Your task to perform on an android device: Open the phone app and click the voicemail tab. Image 0: 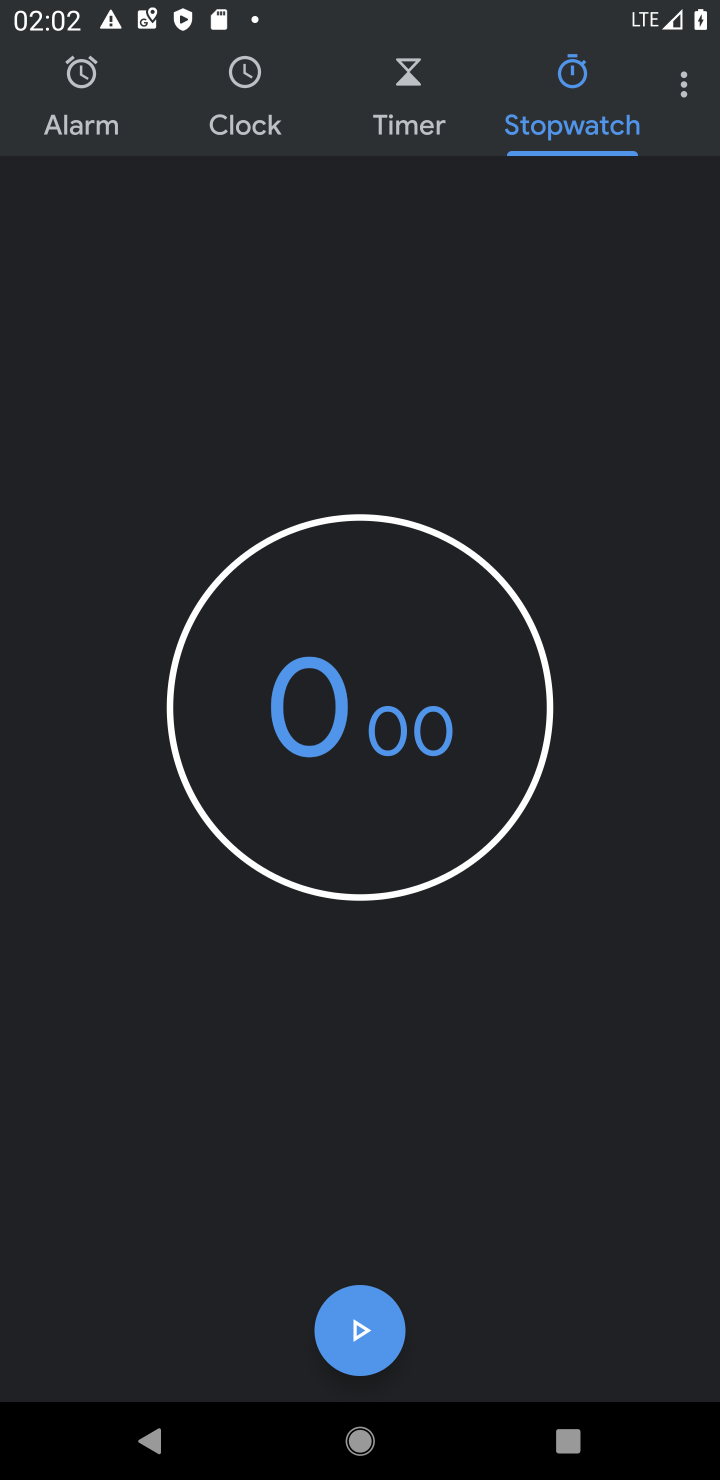
Step 0: click (356, 1445)
Your task to perform on an android device: Open the phone app and click the voicemail tab. Image 1: 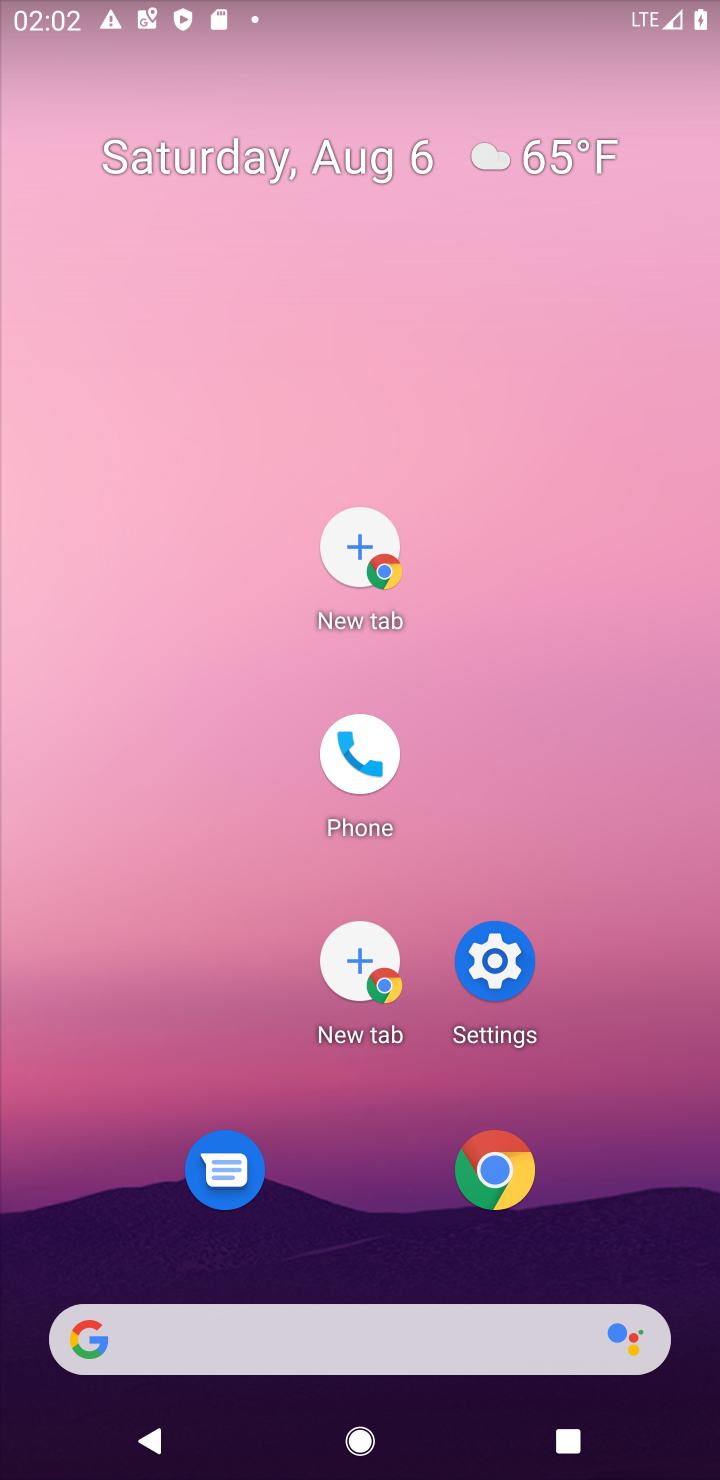
Step 1: click (348, 738)
Your task to perform on an android device: Open the phone app and click the voicemail tab. Image 2: 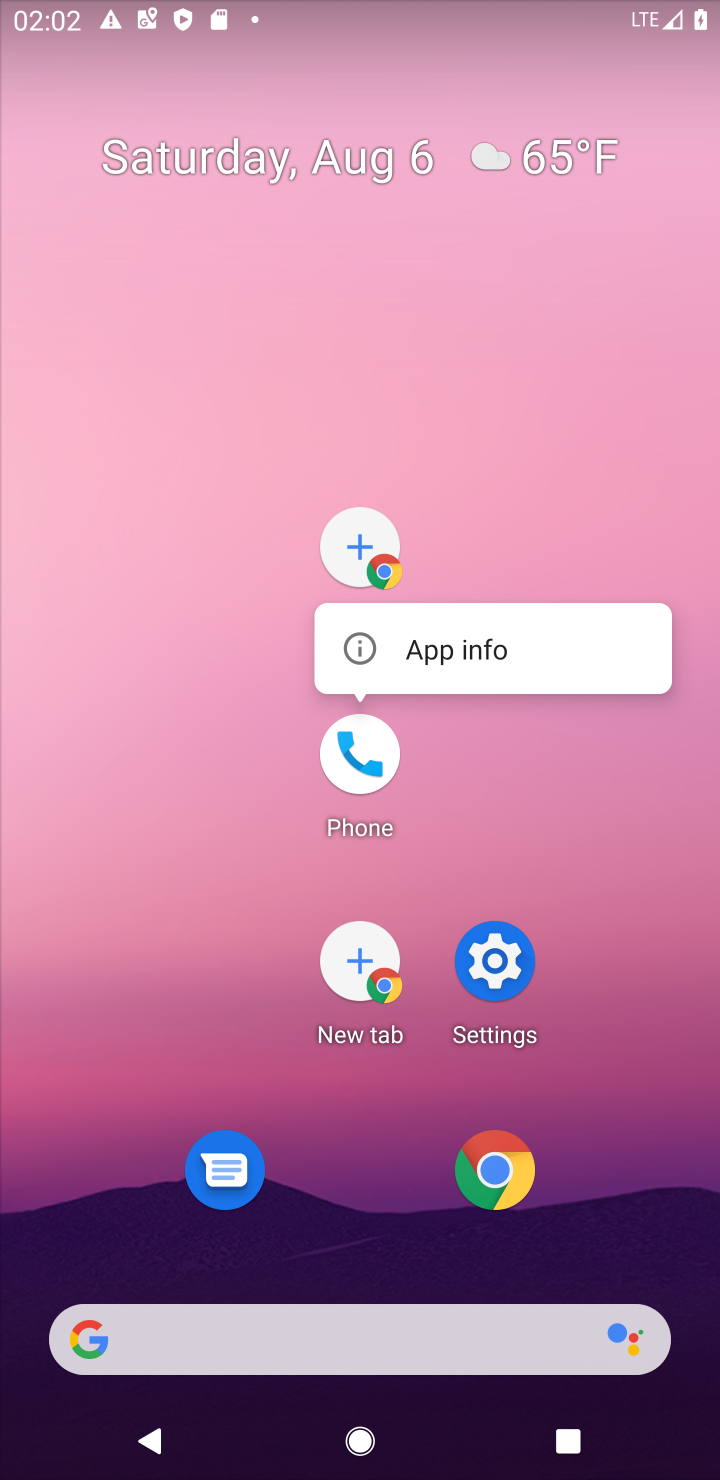
Step 2: click (50, 599)
Your task to perform on an android device: Open the phone app and click the voicemail tab. Image 3: 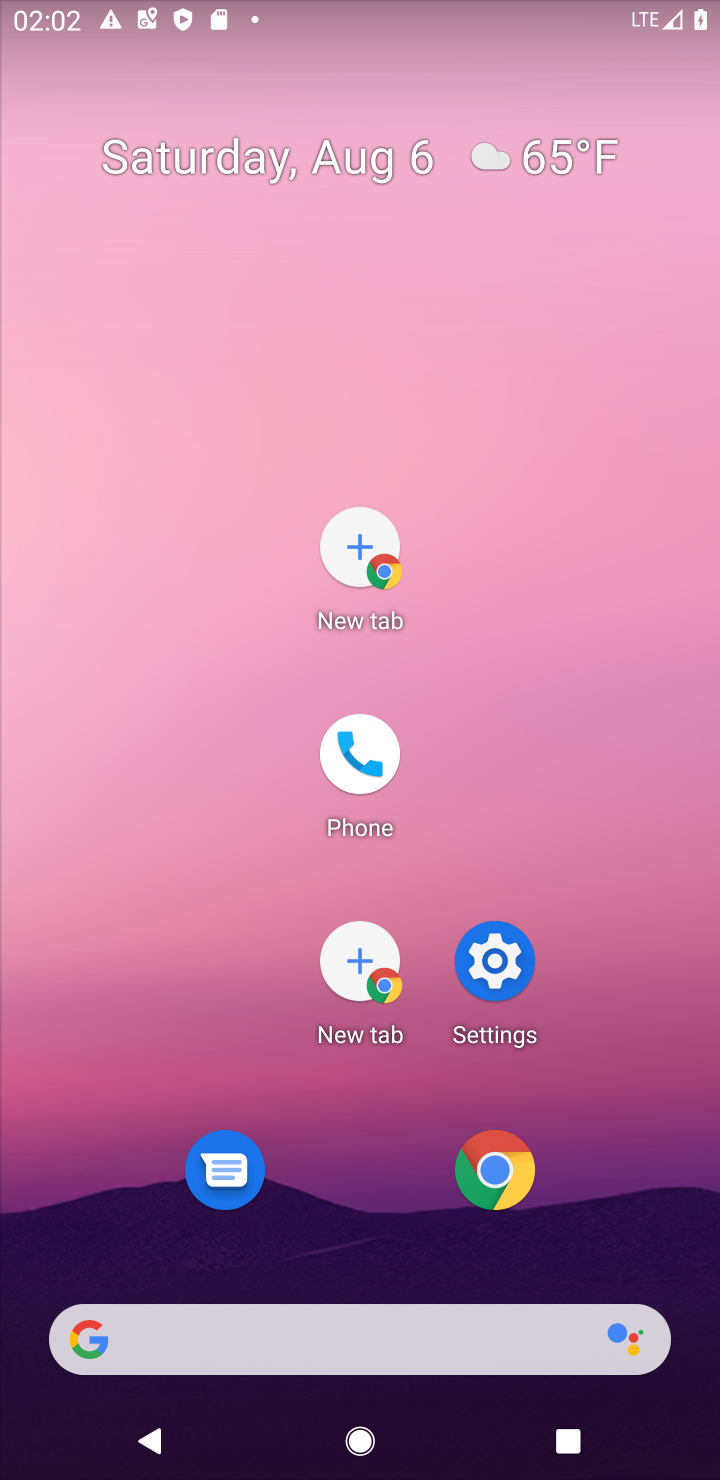
Step 3: click (357, 791)
Your task to perform on an android device: Open the phone app and click the voicemail tab. Image 4: 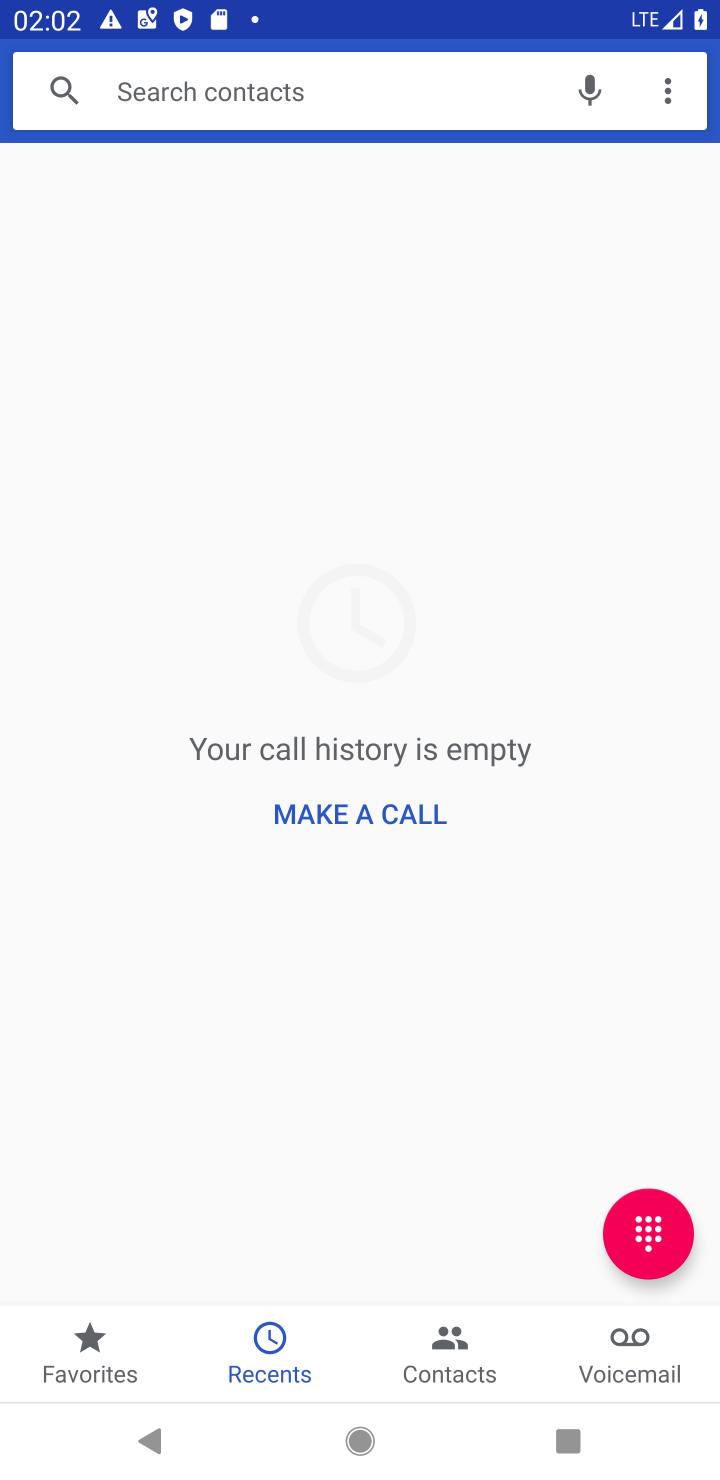
Step 4: click (629, 1360)
Your task to perform on an android device: Open the phone app and click the voicemail tab. Image 5: 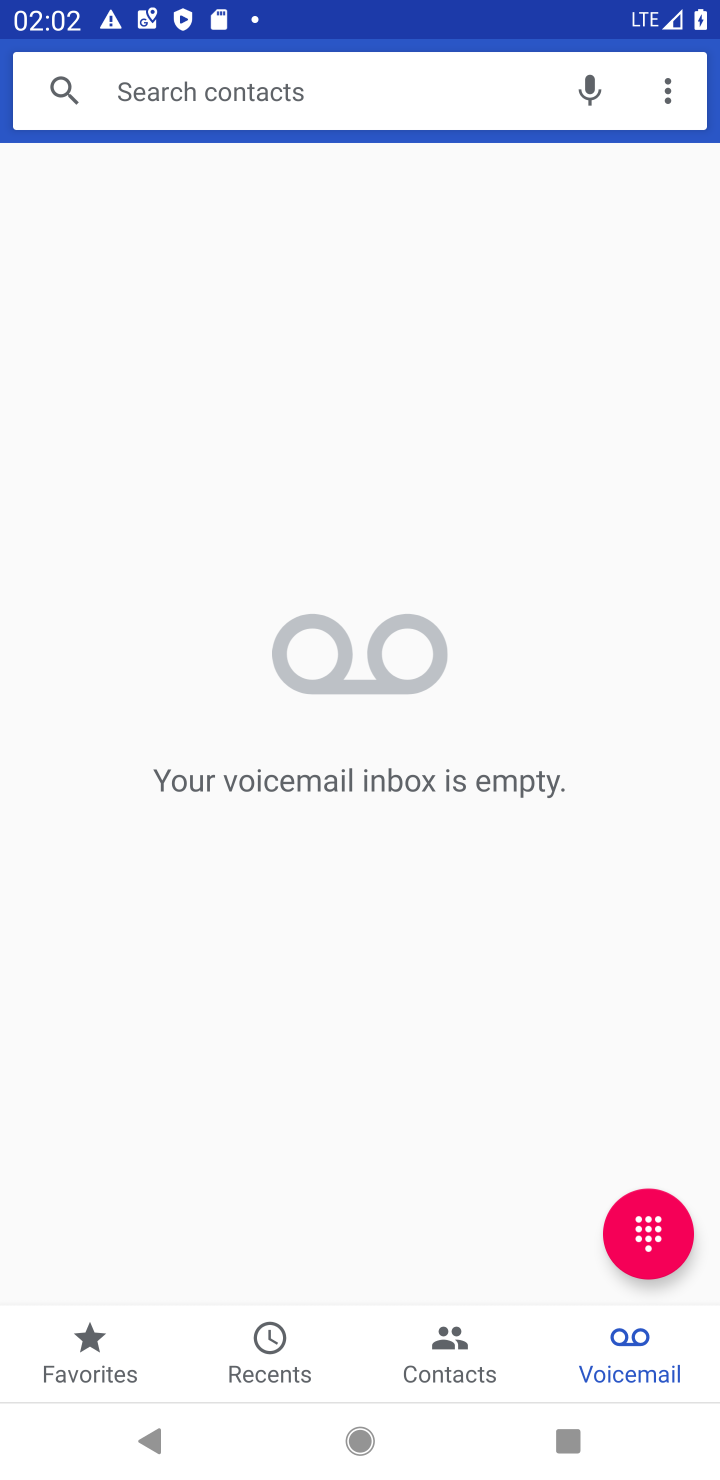
Step 5: task complete